Your task to perform on an android device: Do I have any events tomorrow? Image 0: 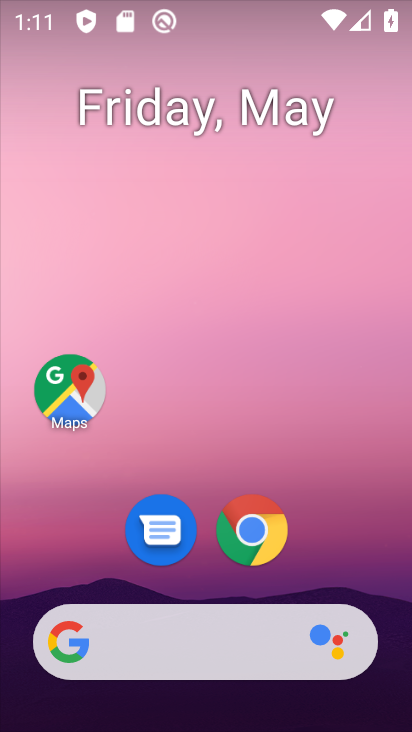
Step 0: drag from (201, 554) to (227, 46)
Your task to perform on an android device: Do I have any events tomorrow? Image 1: 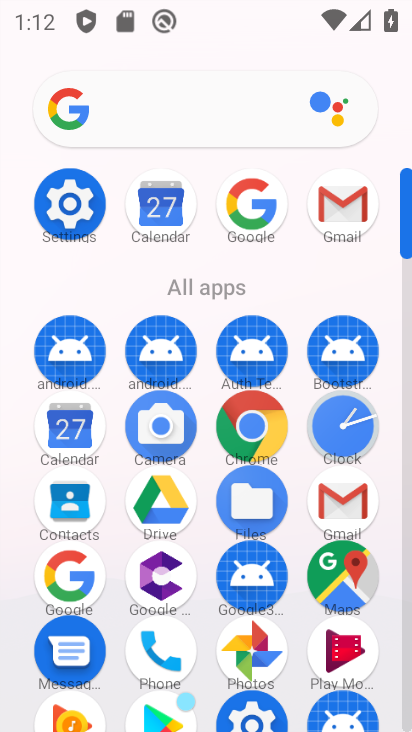
Step 1: click (60, 431)
Your task to perform on an android device: Do I have any events tomorrow? Image 2: 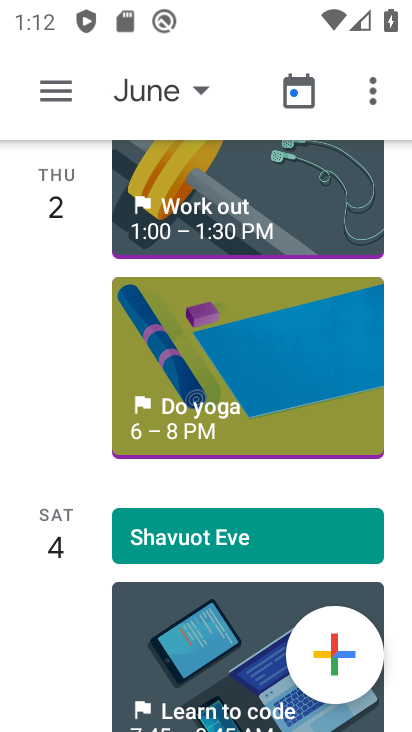
Step 2: click (151, 109)
Your task to perform on an android device: Do I have any events tomorrow? Image 3: 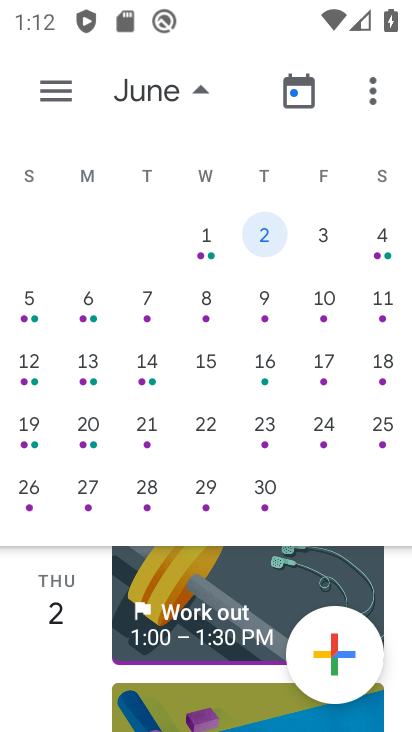
Step 3: drag from (75, 353) to (404, 331)
Your task to perform on an android device: Do I have any events tomorrow? Image 4: 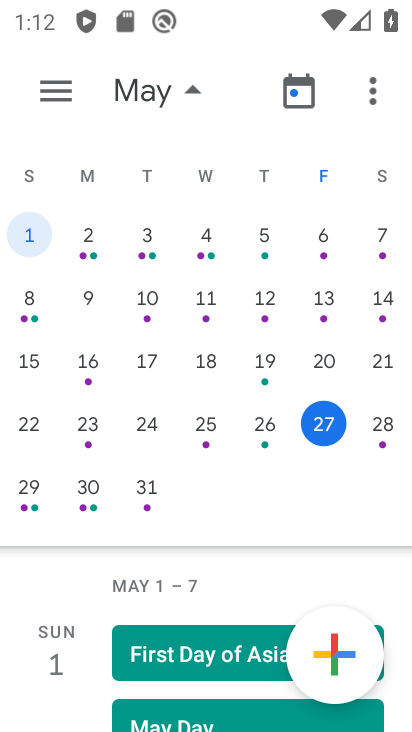
Step 4: click (378, 428)
Your task to perform on an android device: Do I have any events tomorrow? Image 5: 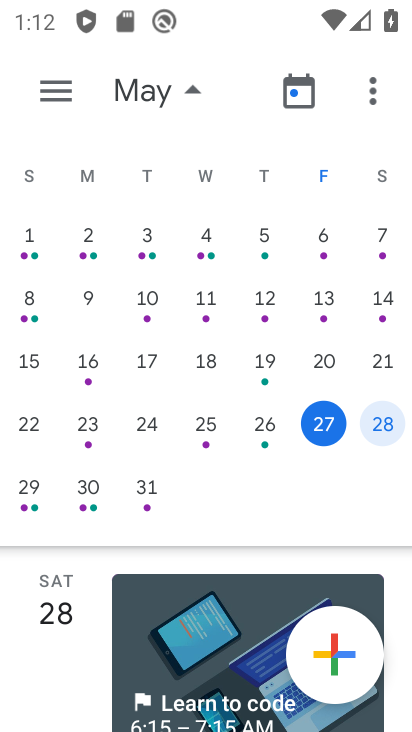
Step 5: task complete